Your task to perform on an android device: Search for macbook pro on newegg, select the first entry, and add it to the cart. Image 0: 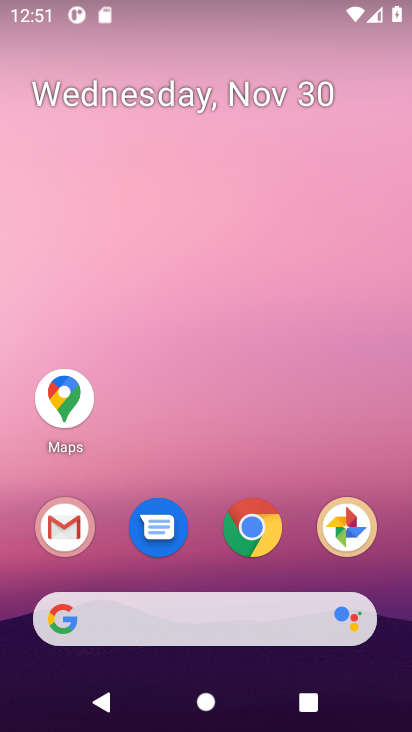
Step 0: click (257, 530)
Your task to perform on an android device: Search for macbook pro on newegg, select the first entry, and add it to the cart. Image 1: 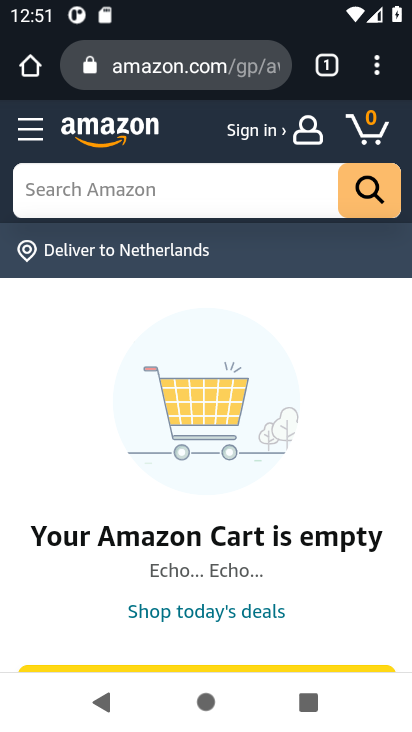
Step 1: click (165, 77)
Your task to perform on an android device: Search for macbook pro on newegg, select the first entry, and add it to the cart. Image 2: 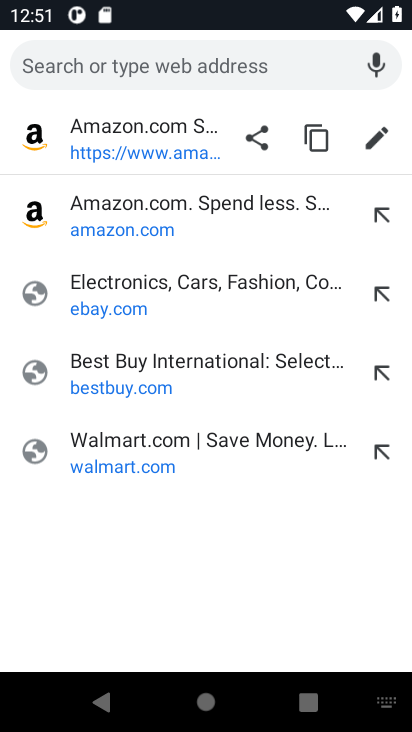
Step 2: type "newegg"
Your task to perform on an android device: Search for macbook pro on newegg, select the first entry, and add it to the cart. Image 3: 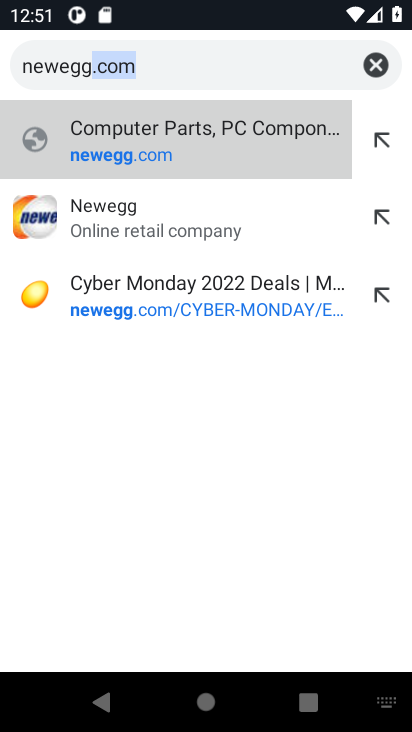
Step 3: click (220, 213)
Your task to perform on an android device: Search for macbook pro on newegg, select the first entry, and add it to the cart. Image 4: 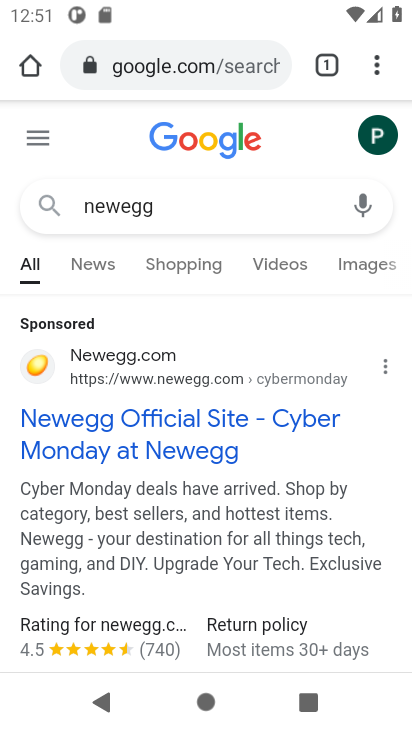
Step 4: click (194, 443)
Your task to perform on an android device: Search for macbook pro on newegg, select the first entry, and add it to the cart. Image 5: 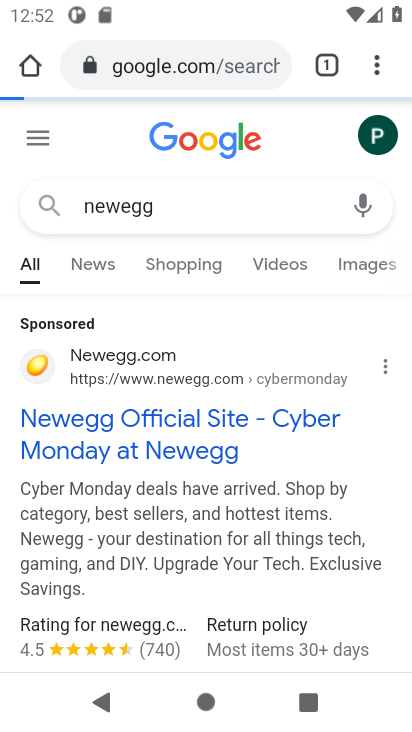
Step 5: click (74, 457)
Your task to perform on an android device: Search for macbook pro on newegg, select the first entry, and add it to the cart. Image 6: 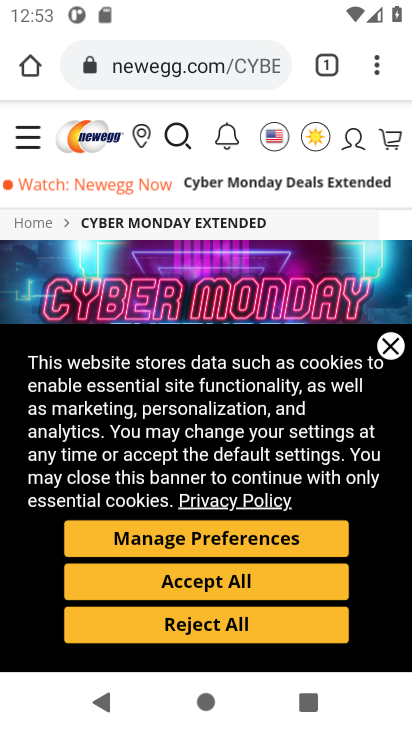
Step 6: click (174, 133)
Your task to perform on an android device: Search for macbook pro on newegg, select the first entry, and add it to the cart. Image 7: 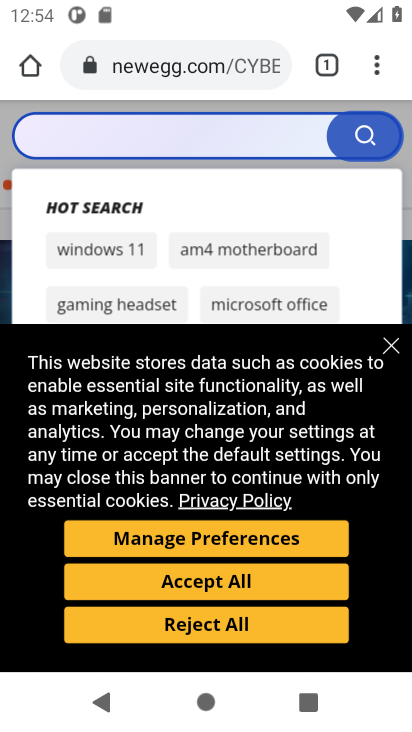
Step 7: type "macbook pro"
Your task to perform on an android device: Search for macbook pro on newegg, select the first entry, and add it to the cart. Image 8: 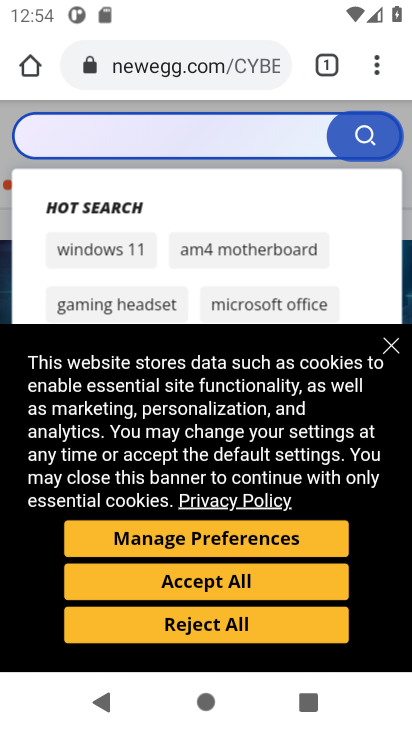
Step 8: click (163, 141)
Your task to perform on an android device: Search for macbook pro on newegg, select the first entry, and add it to the cart. Image 9: 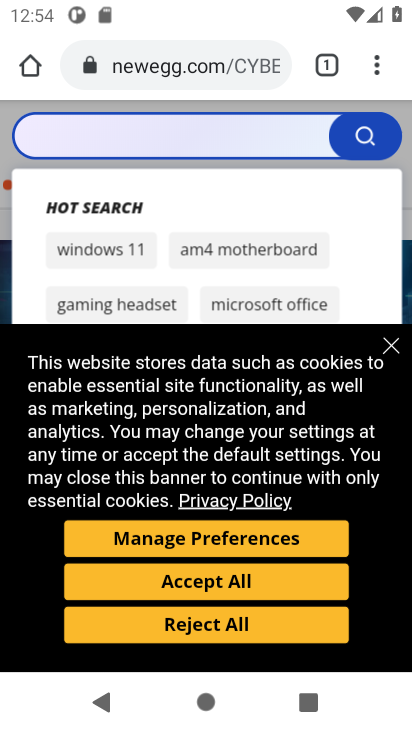
Step 9: click (163, 141)
Your task to perform on an android device: Search for macbook pro on newegg, select the first entry, and add it to the cart. Image 10: 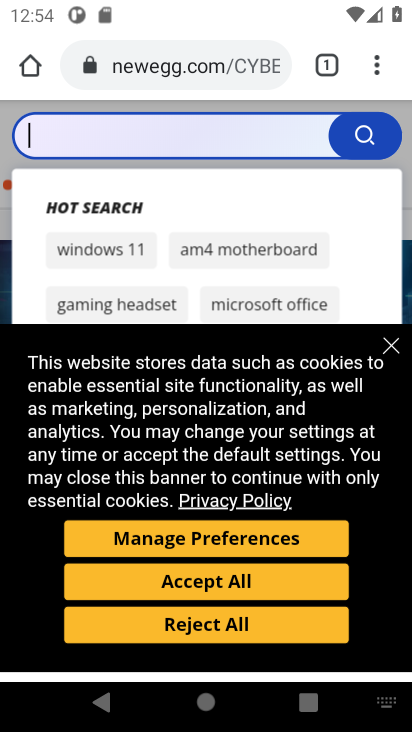
Step 10: click (163, 141)
Your task to perform on an android device: Search for macbook pro on newegg, select the first entry, and add it to the cart. Image 11: 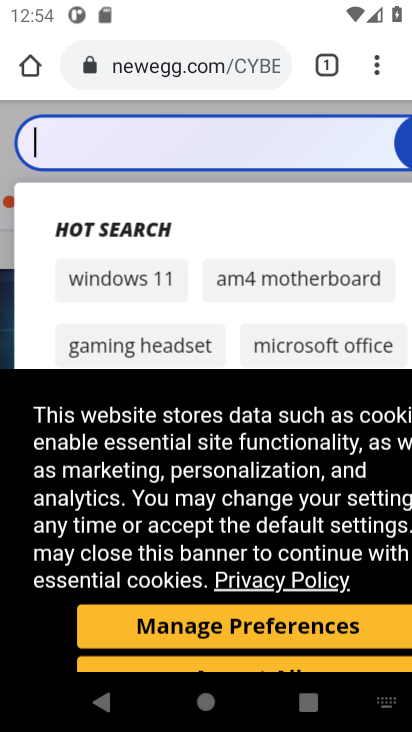
Step 11: type "macbook"
Your task to perform on an android device: Search for macbook pro on newegg, select the first entry, and add it to the cart. Image 12: 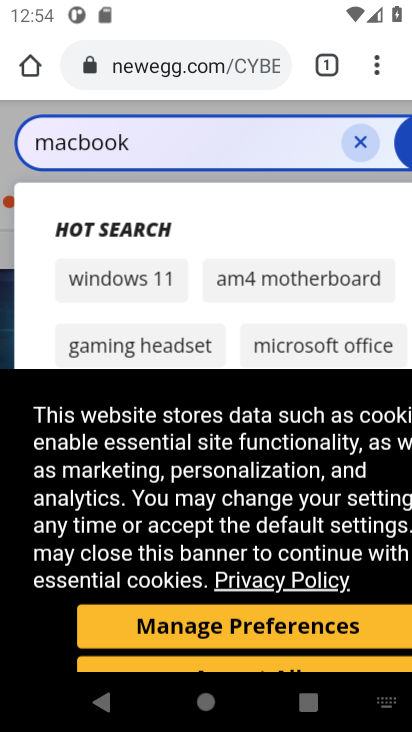
Step 12: task complete